Your task to perform on an android device: Do I have any events today? Image 0: 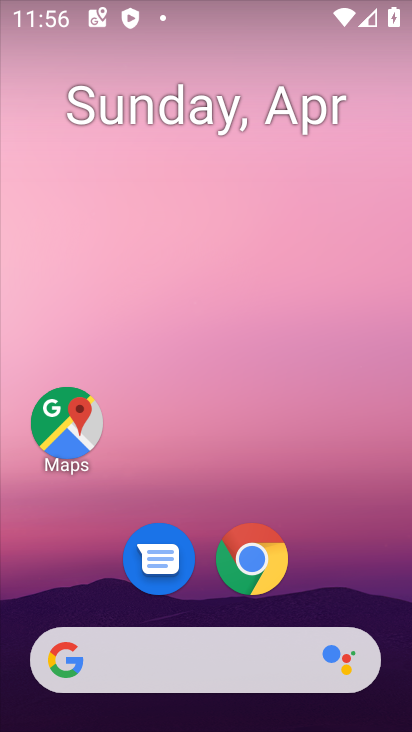
Step 0: drag from (341, 602) to (304, 171)
Your task to perform on an android device: Do I have any events today? Image 1: 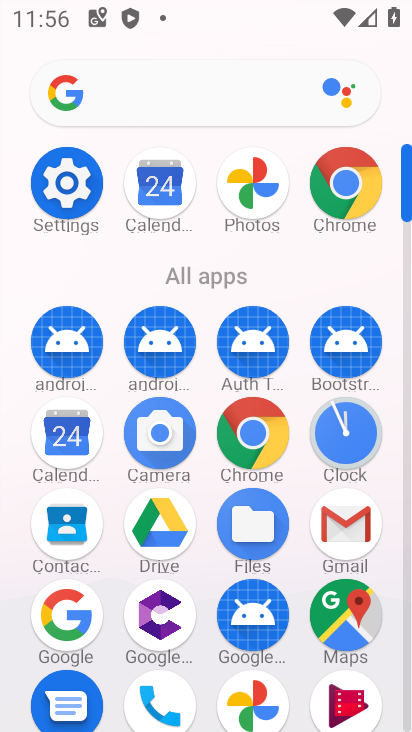
Step 1: click (68, 424)
Your task to perform on an android device: Do I have any events today? Image 2: 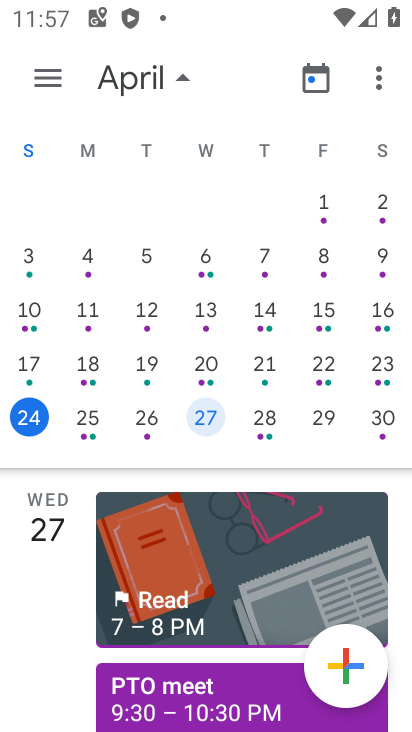
Step 2: task complete